Your task to perform on an android device: Go to Yahoo.com Image 0: 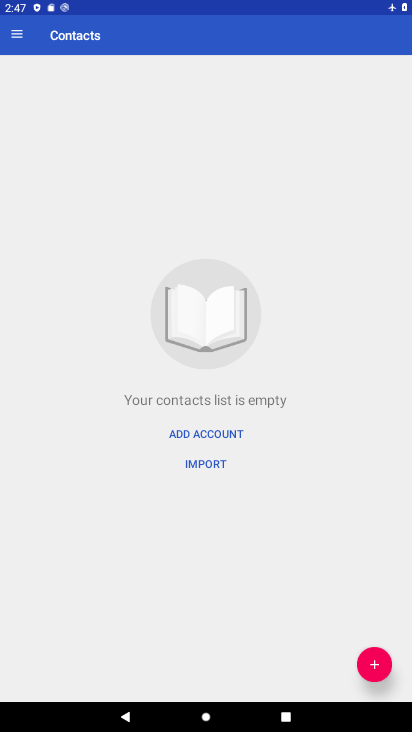
Step 0: press home button
Your task to perform on an android device: Go to Yahoo.com Image 1: 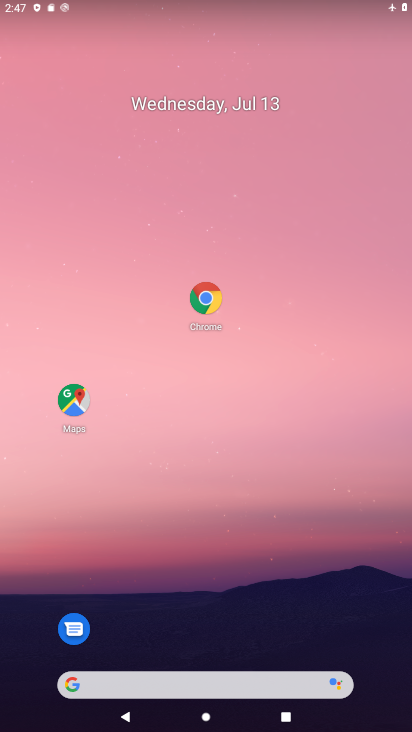
Step 1: drag from (182, 640) to (201, 342)
Your task to perform on an android device: Go to Yahoo.com Image 2: 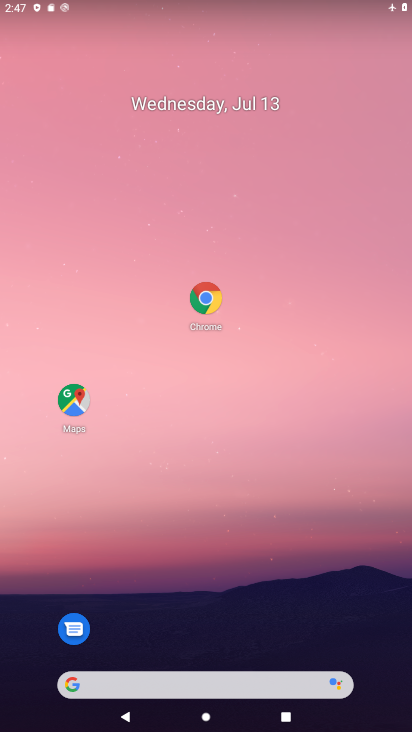
Step 2: click (205, 291)
Your task to perform on an android device: Go to Yahoo.com Image 3: 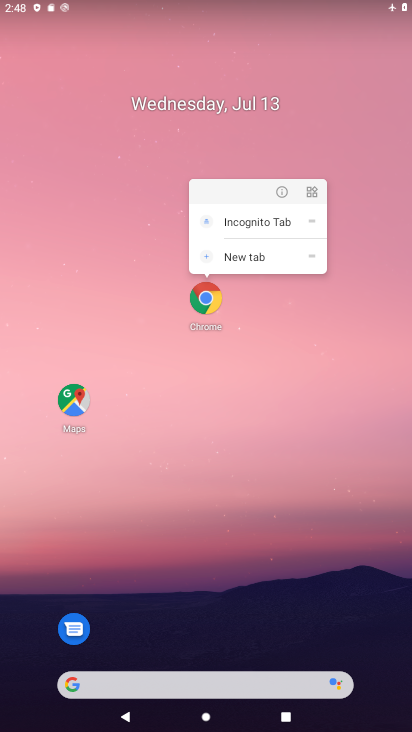
Step 3: click (212, 294)
Your task to perform on an android device: Go to Yahoo.com Image 4: 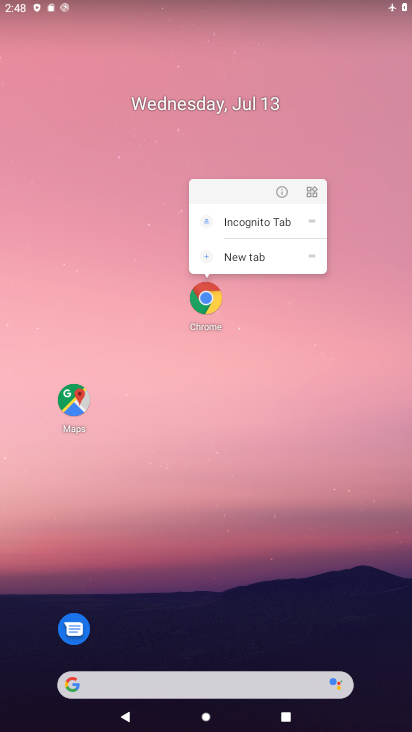
Step 4: click (212, 294)
Your task to perform on an android device: Go to Yahoo.com Image 5: 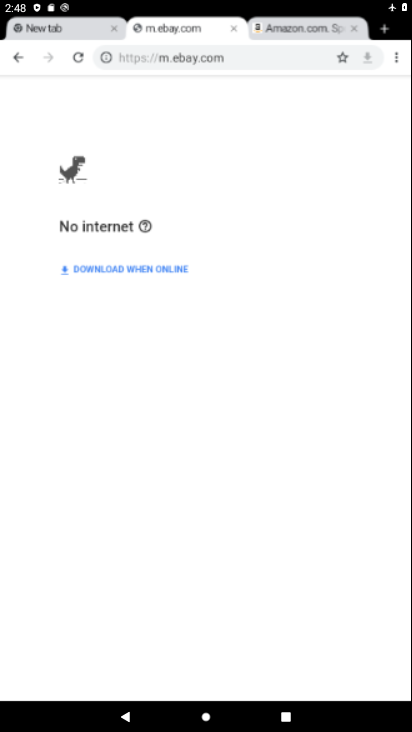
Step 5: click (204, 294)
Your task to perform on an android device: Go to Yahoo.com Image 6: 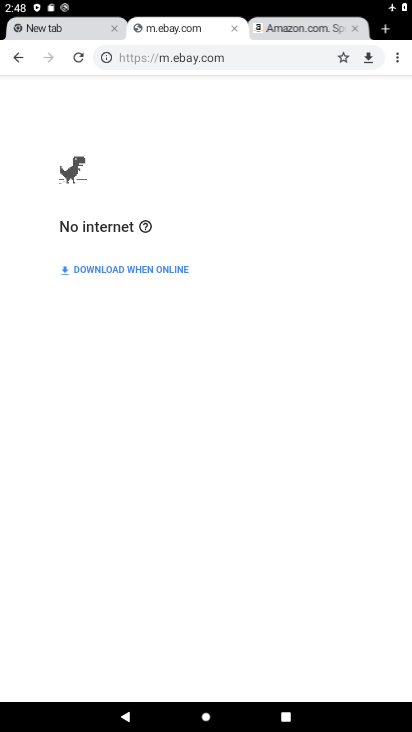
Step 6: click (40, 31)
Your task to perform on an android device: Go to Yahoo.com Image 7: 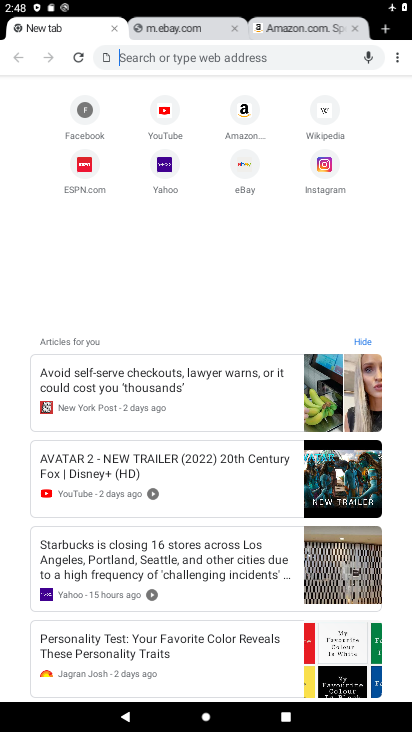
Step 7: click (157, 175)
Your task to perform on an android device: Go to Yahoo.com Image 8: 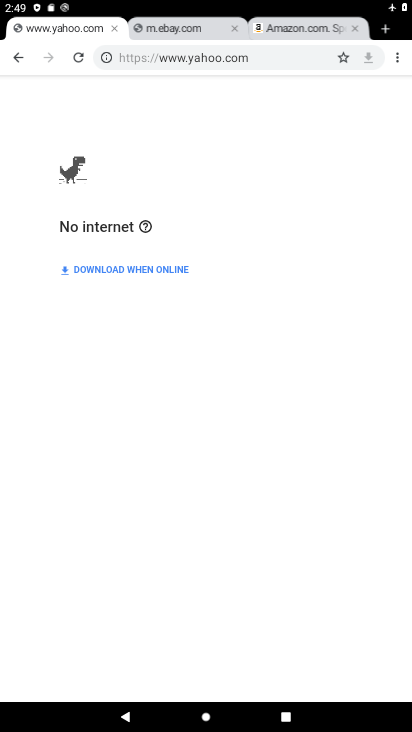
Step 8: task complete